Your task to perform on an android device: toggle priority inbox in the gmail app Image 0: 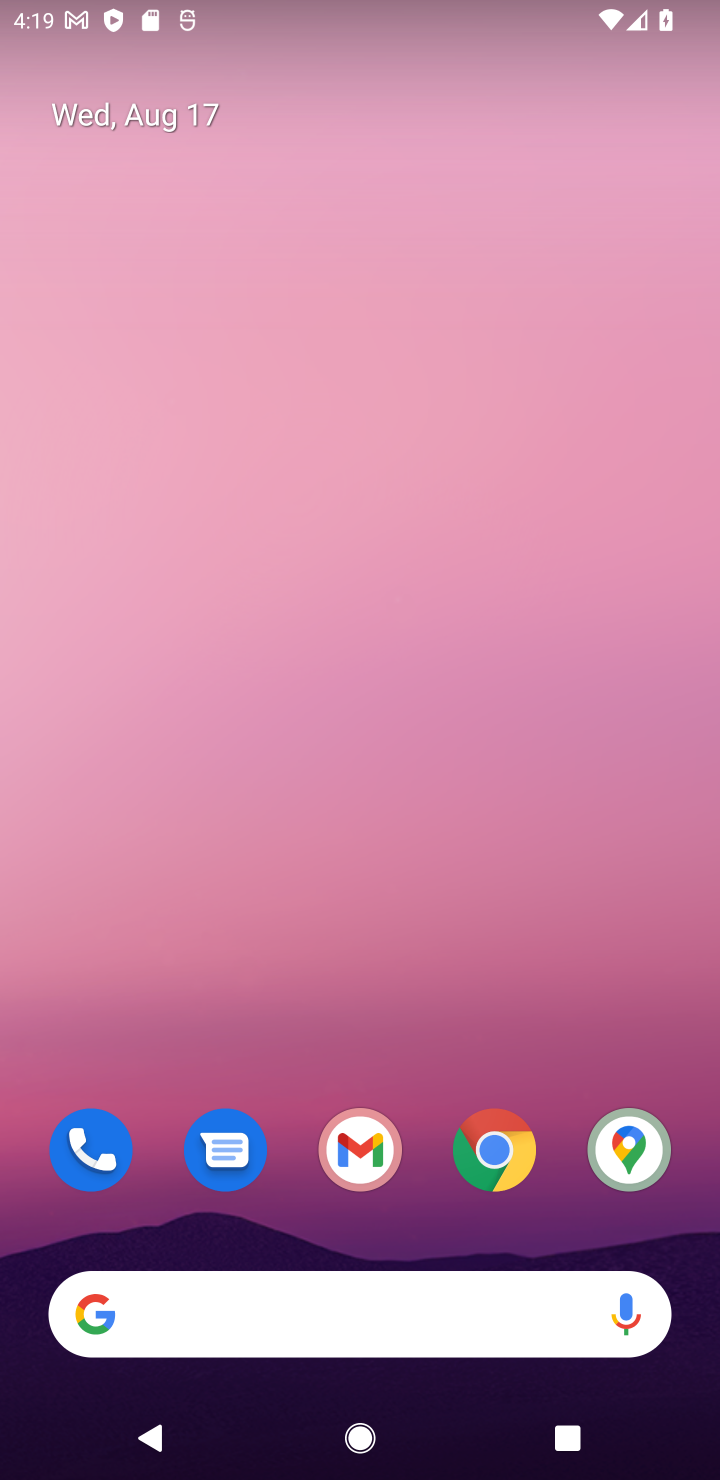
Step 0: drag from (648, 1217) to (344, 110)
Your task to perform on an android device: toggle priority inbox in the gmail app Image 1: 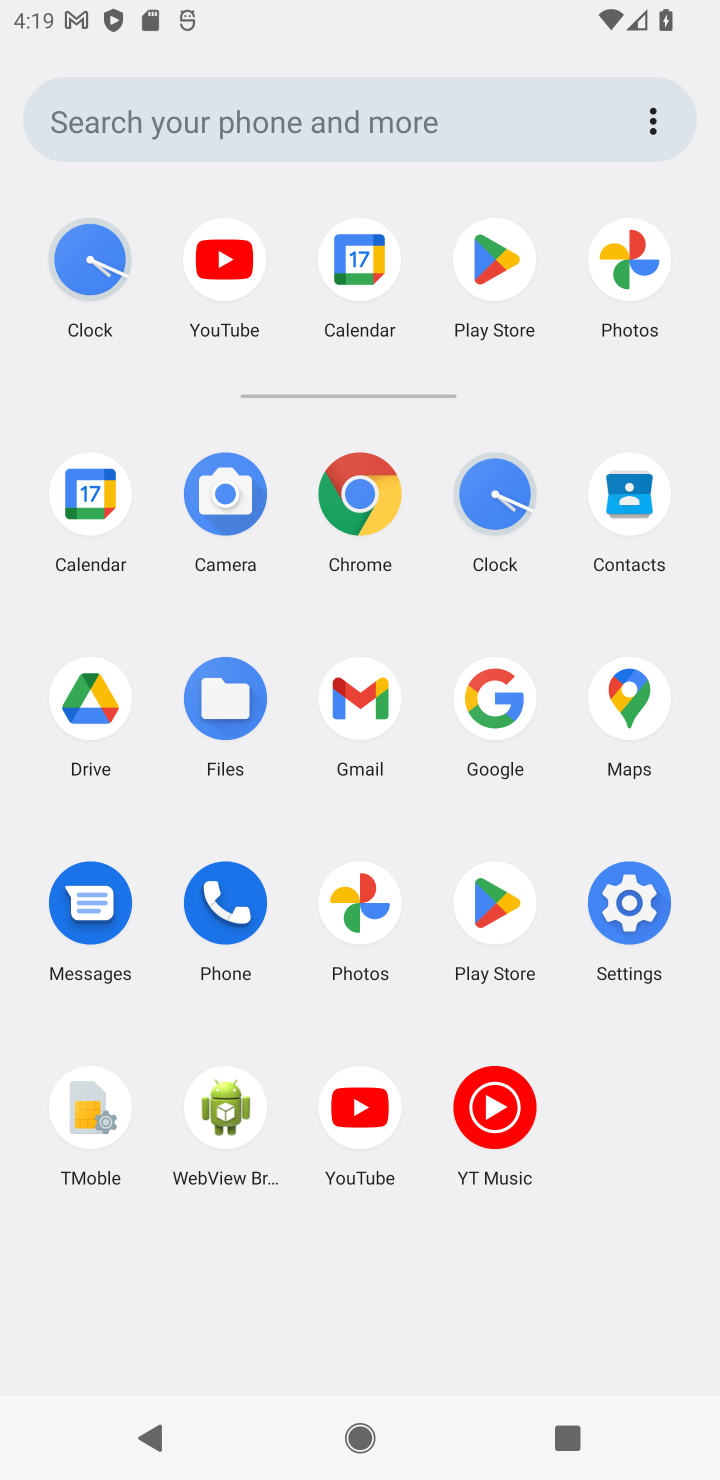
Step 1: click (364, 721)
Your task to perform on an android device: toggle priority inbox in the gmail app Image 2: 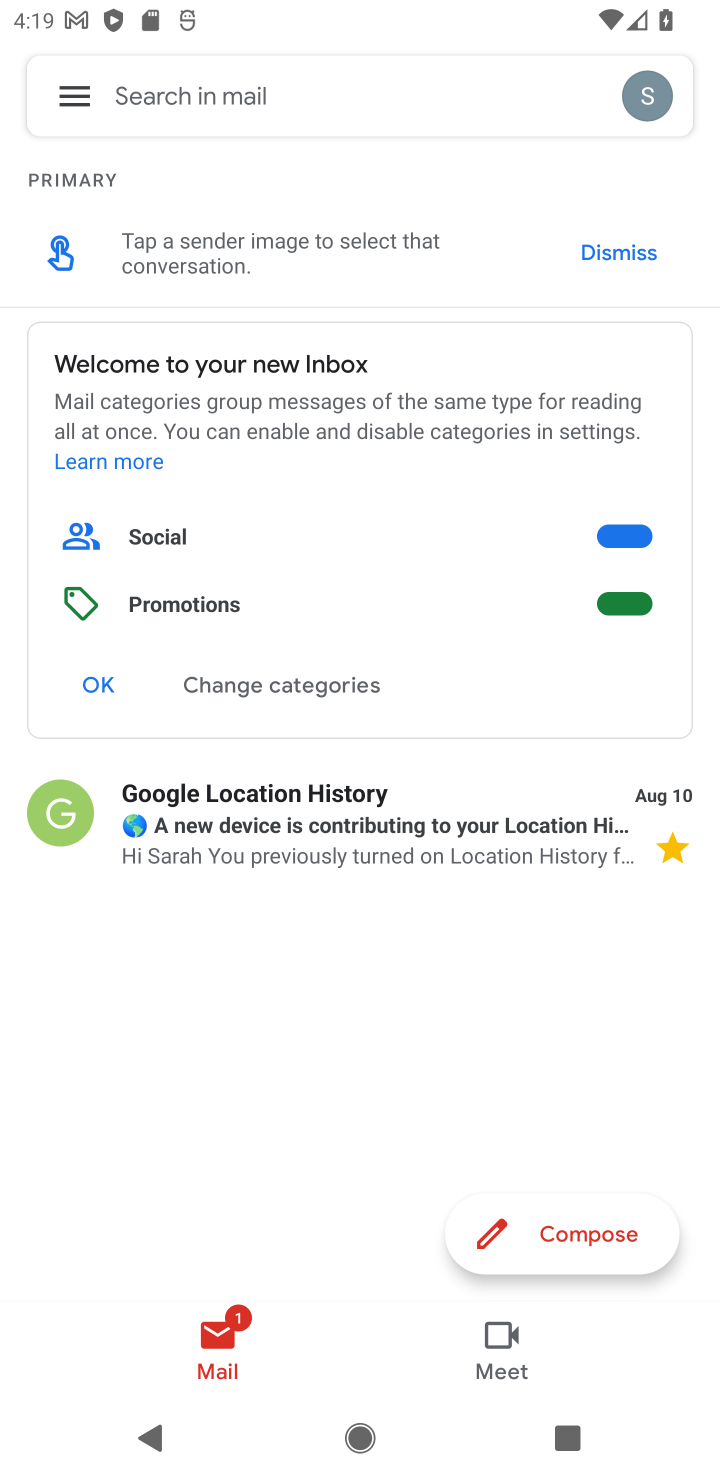
Step 2: click (72, 93)
Your task to perform on an android device: toggle priority inbox in the gmail app Image 3: 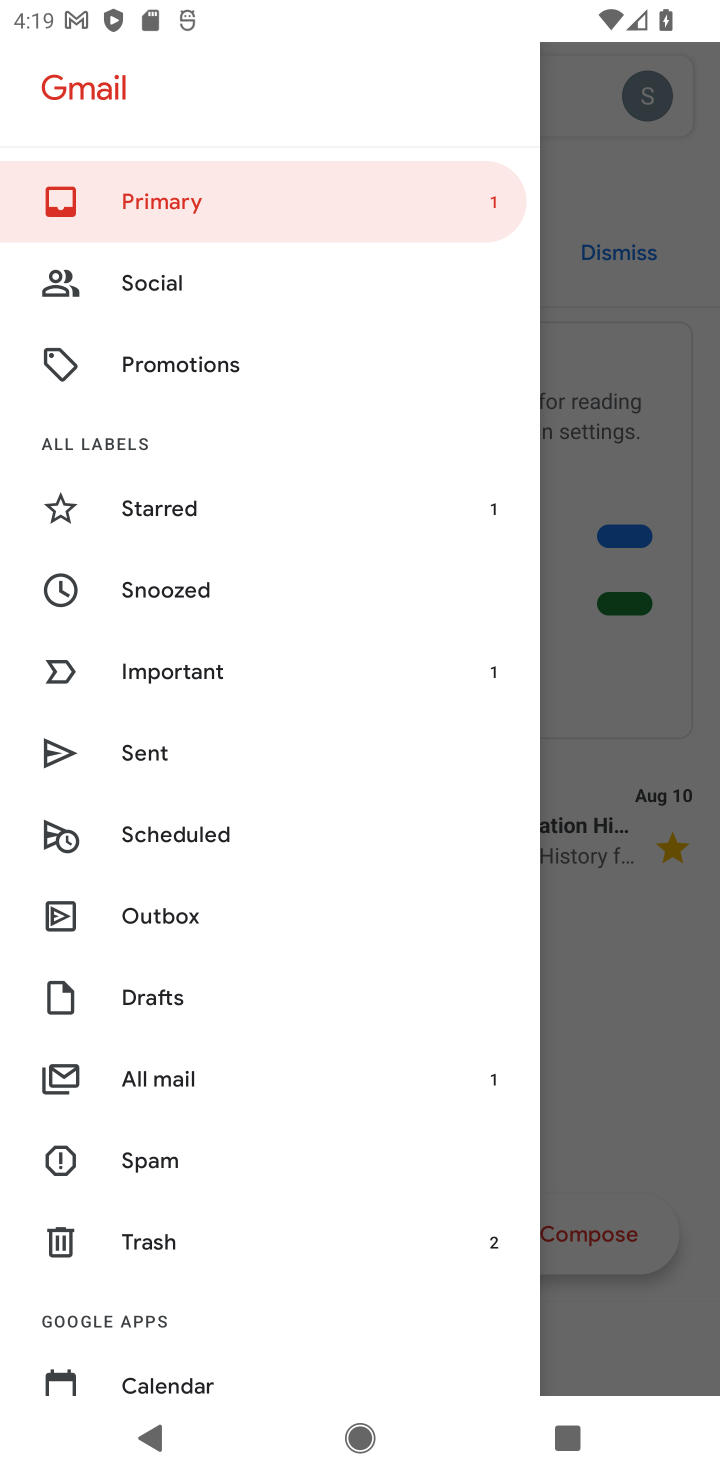
Step 3: drag from (132, 1325) to (230, 133)
Your task to perform on an android device: toggle priority inbox in the gmail app Image 4: 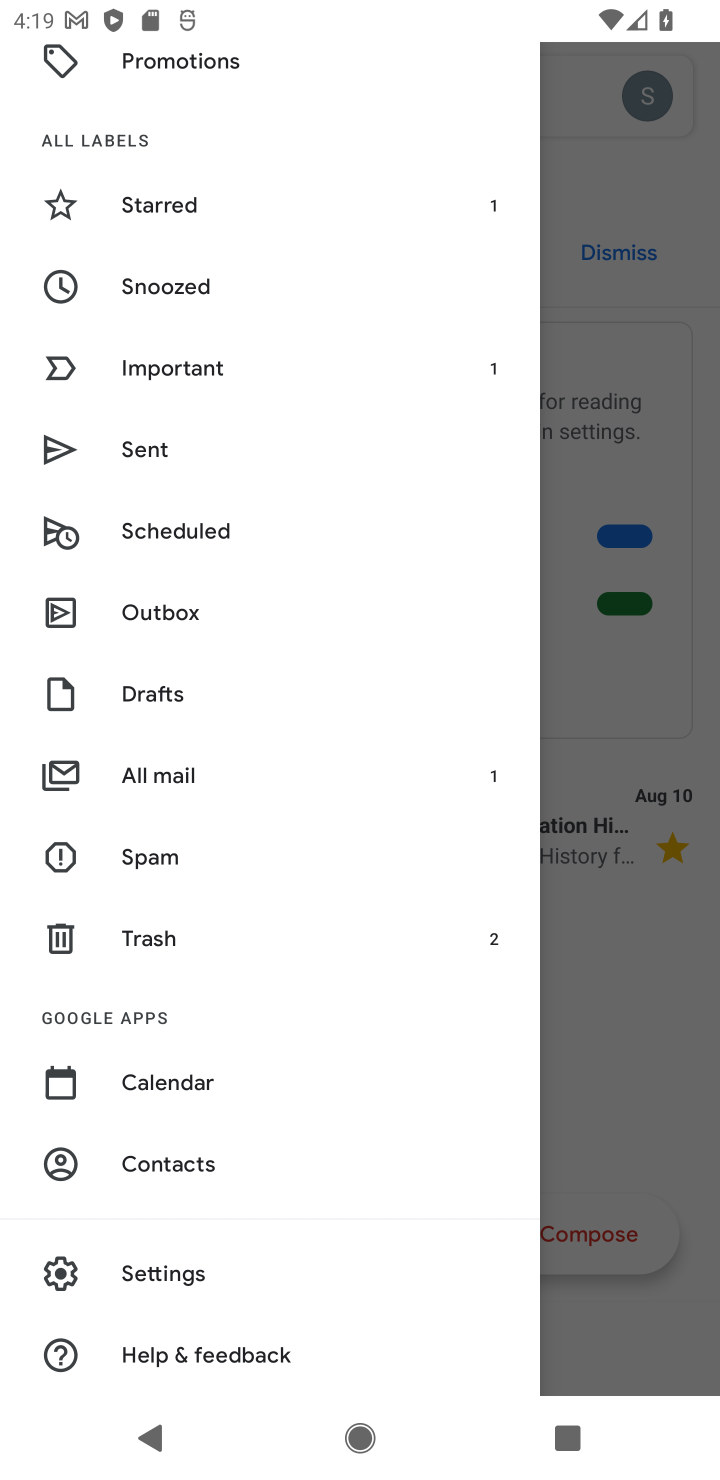
Step 4: click (182, 1278)
Your task to perform on an android device: toggle priority inbox in the gmail app Image 5: 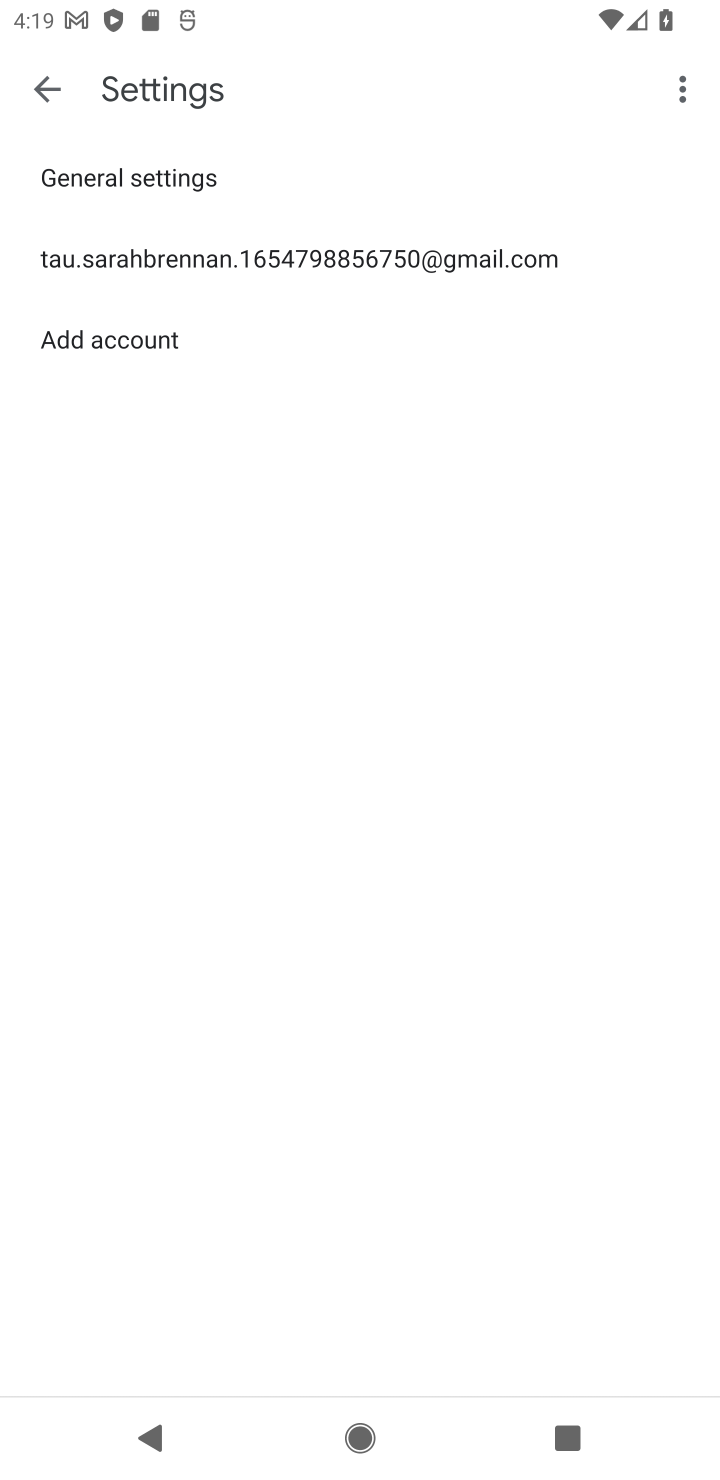
Step 5: click (381, 269)
Your task to perform on an android device: toggle priority inbox in the gmail app Image 6: 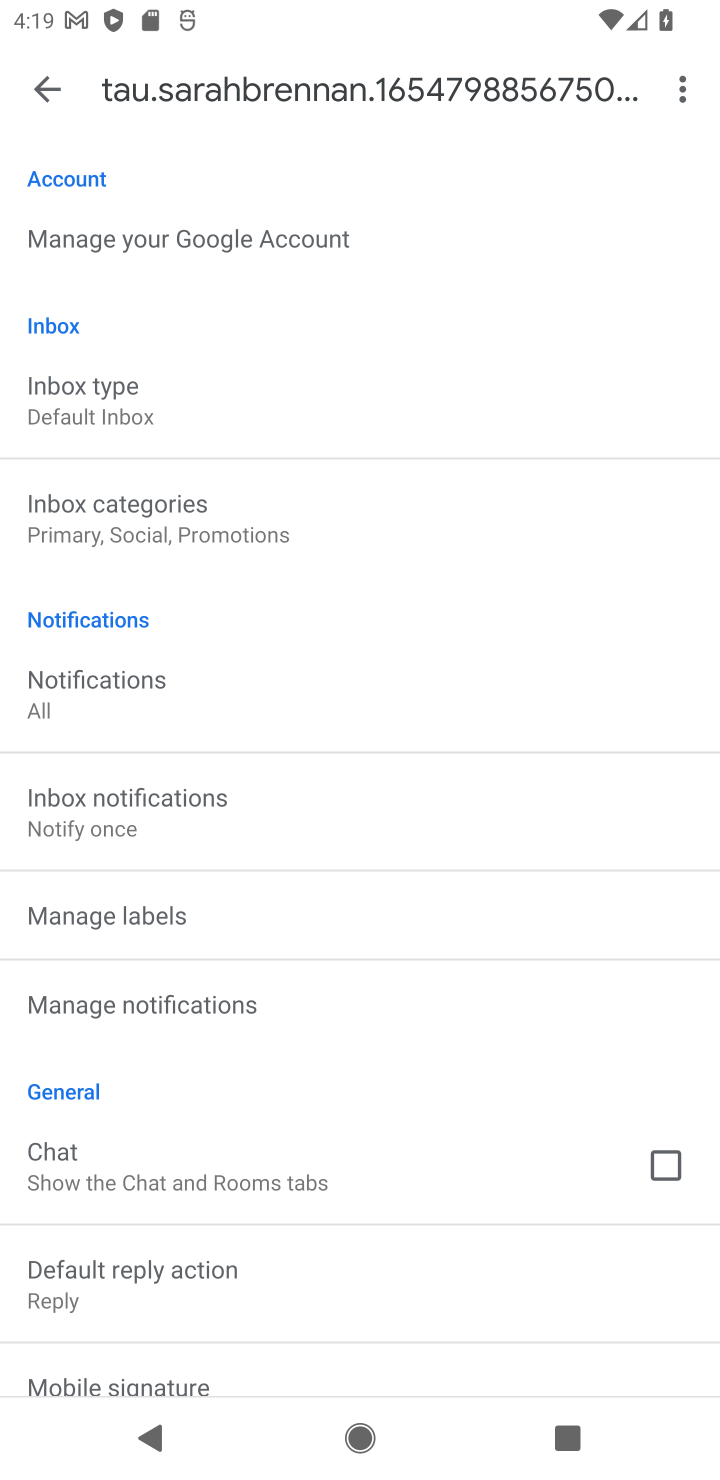
Step 6: click (122, 398)
Your task to perform on an android device: toggle priority inbox in the gmail app Image 7: 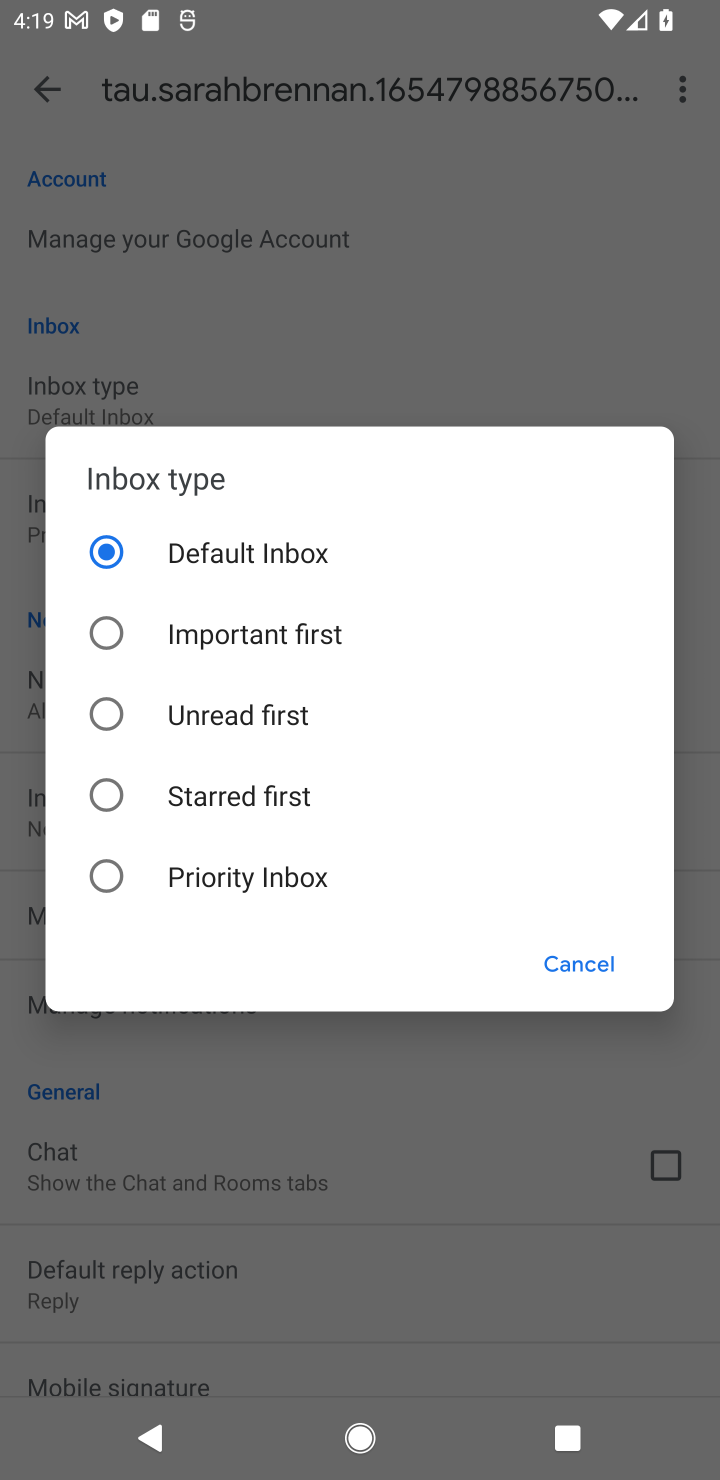
Step 7: click (198, 710)
Your task to perform on an android device: toggle priority inbox in the gmail app Image 8: 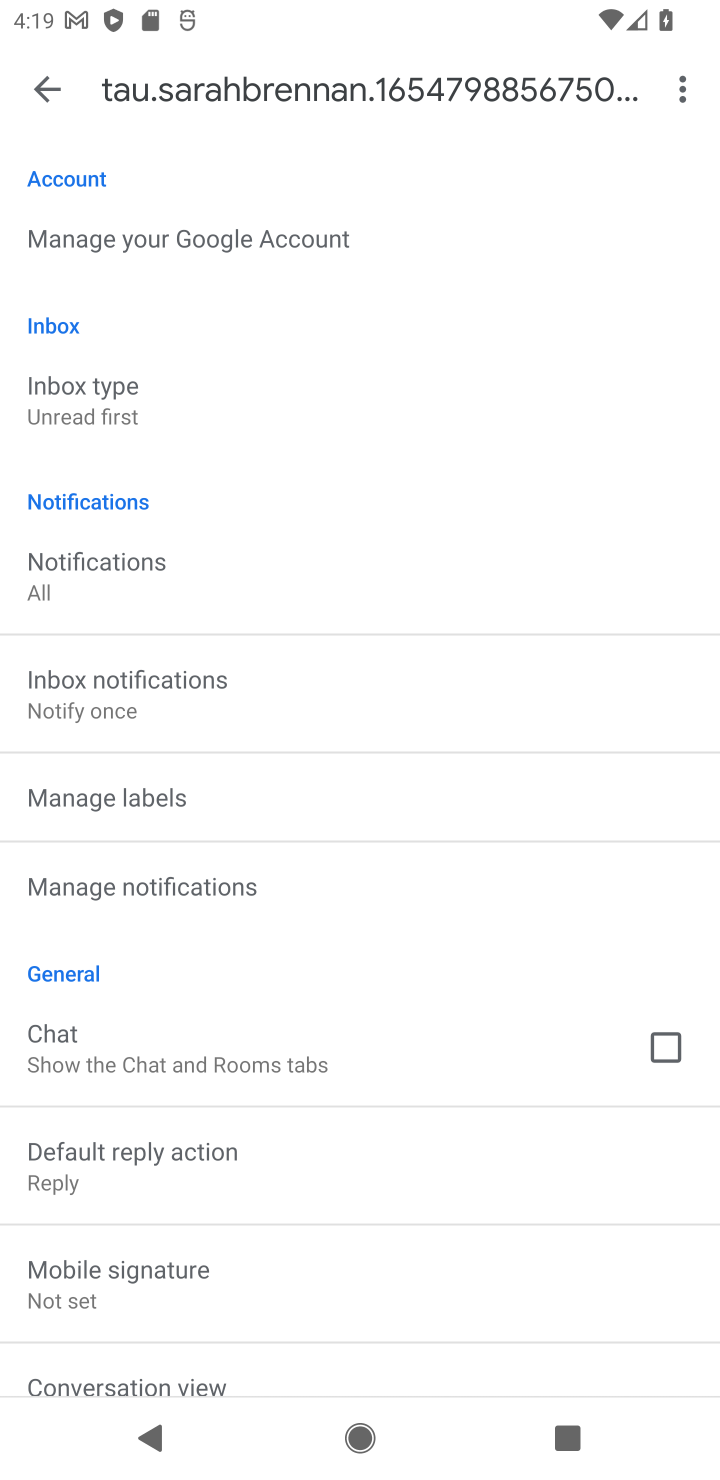
Step 8: task complete